Your task to perform on an android device: uninstall "Booking.com: Hotels and more" Image 0: 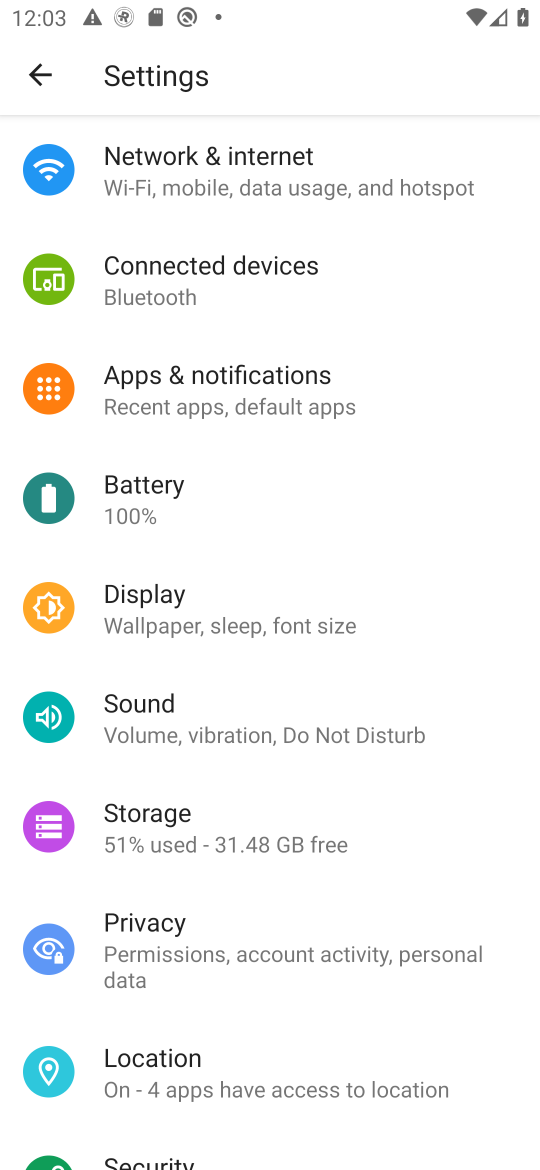
Step 0: press home button
Your task to perform on an android device: uninstall "Booking.com: Hotels and more" Image 1: 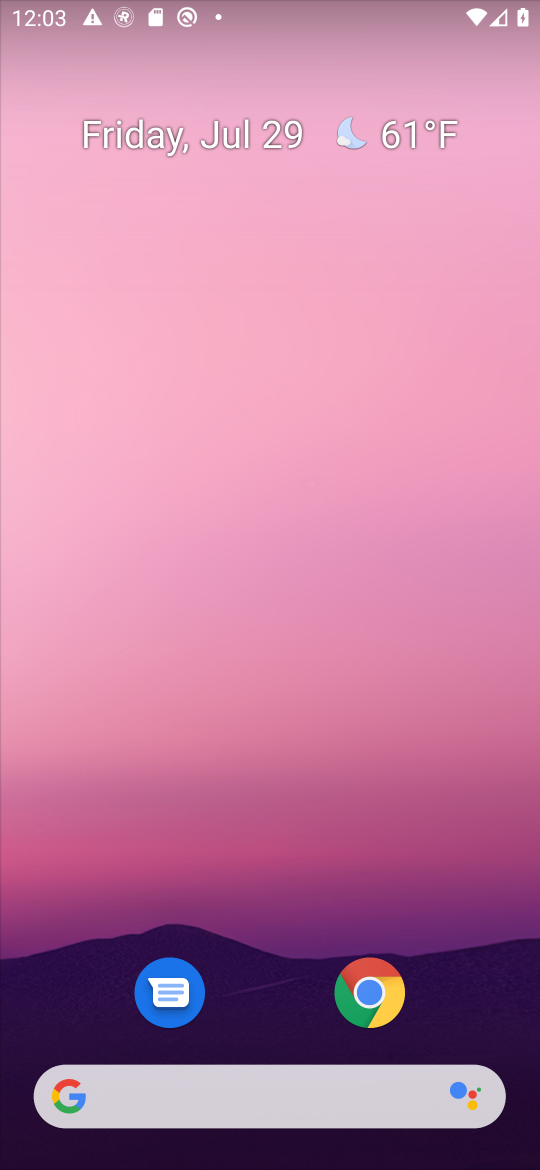
Step 1: drag from (195, 1084) to (137, 173)
Your task to perform on an android device: uninstall "Booking.com: Hotels and more" Image 2: 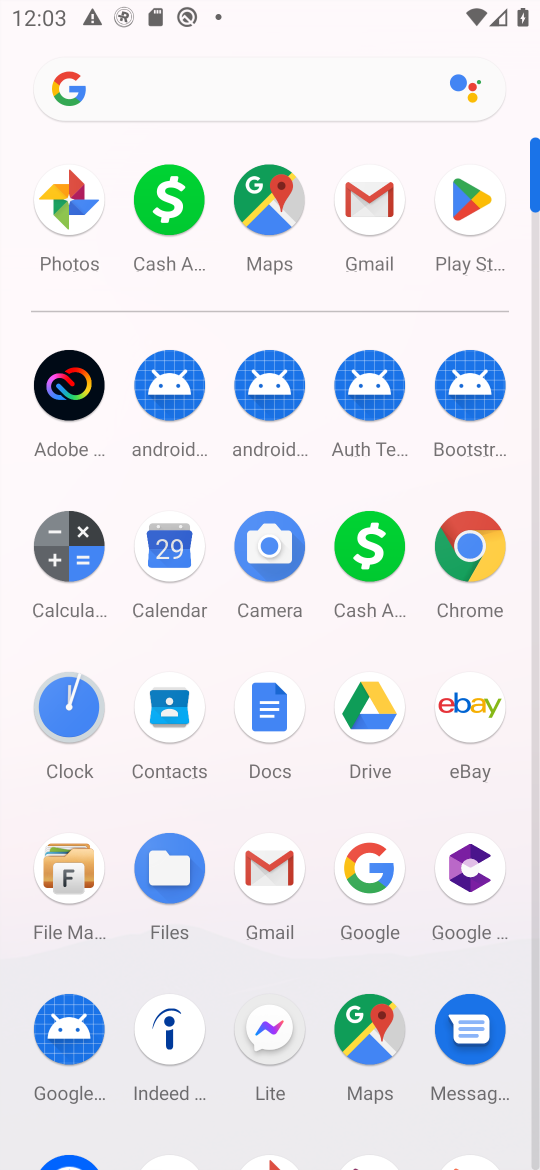
Step 2: click (467, 204)
Your task to perform on an android device: uninstall "Booking.com: Hotels and more" Image 3: 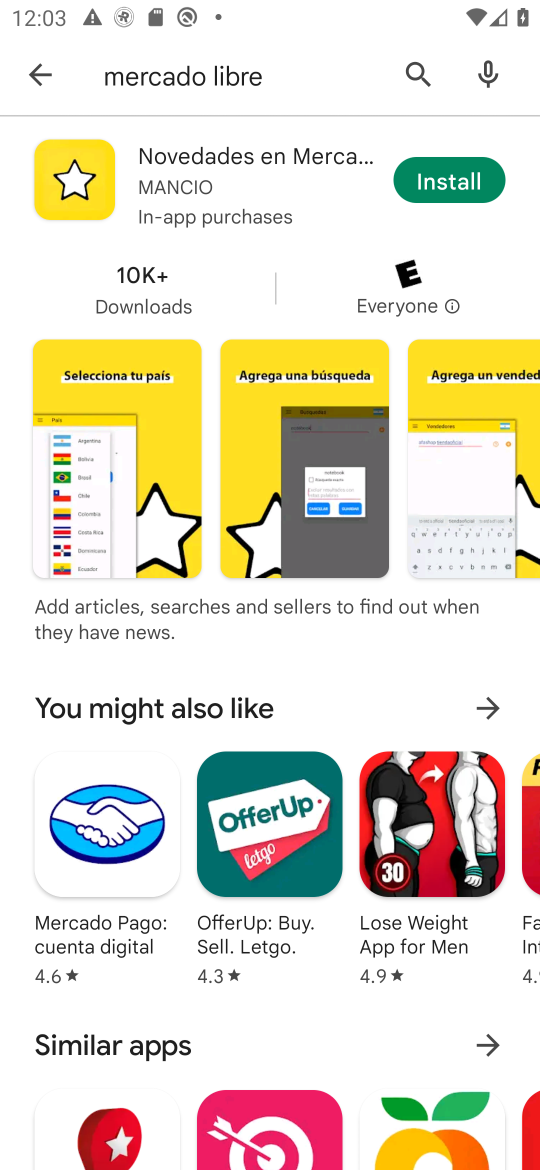
Step 3: click (413, 71)
Your task to perform on an android device: uninstall "Booking.com: Hotels and more" Image 4: 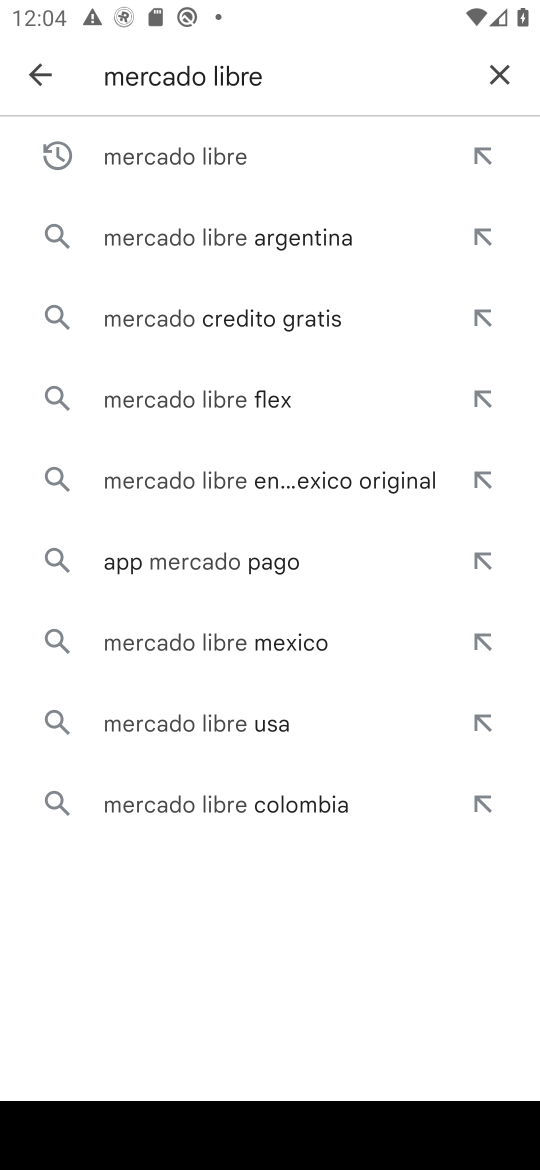
Step 4: click (495, 79)
Your task to perform on an android device: uninstall "Booking.com: Hotels and more" Image 5: 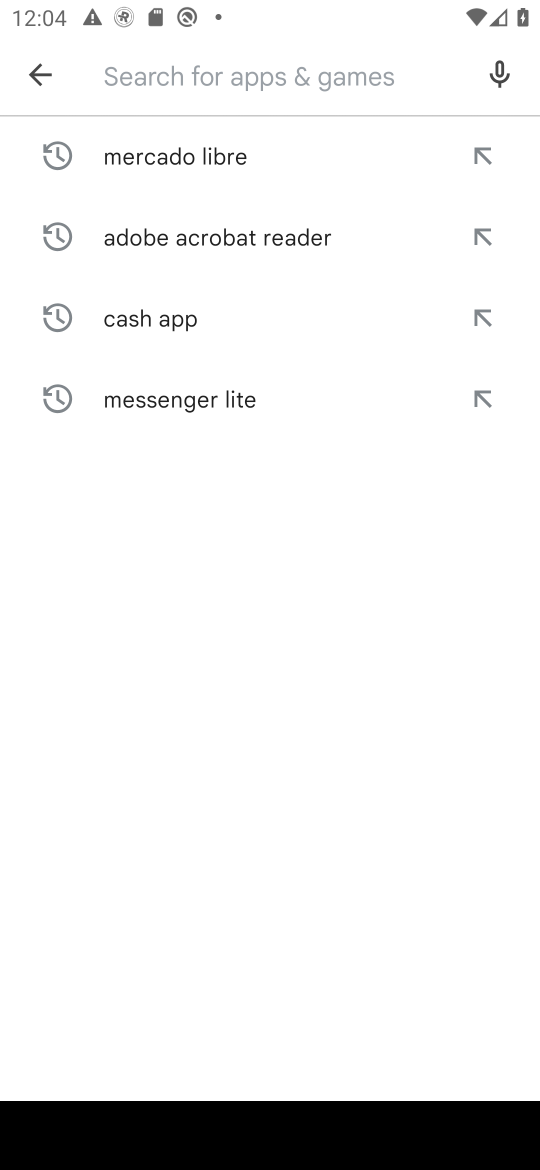
Step 5: type "Booking.com: Hotels and more"
Your task to perform on an android device: uninstall "Booking.com: Hotels and more" Image 6: 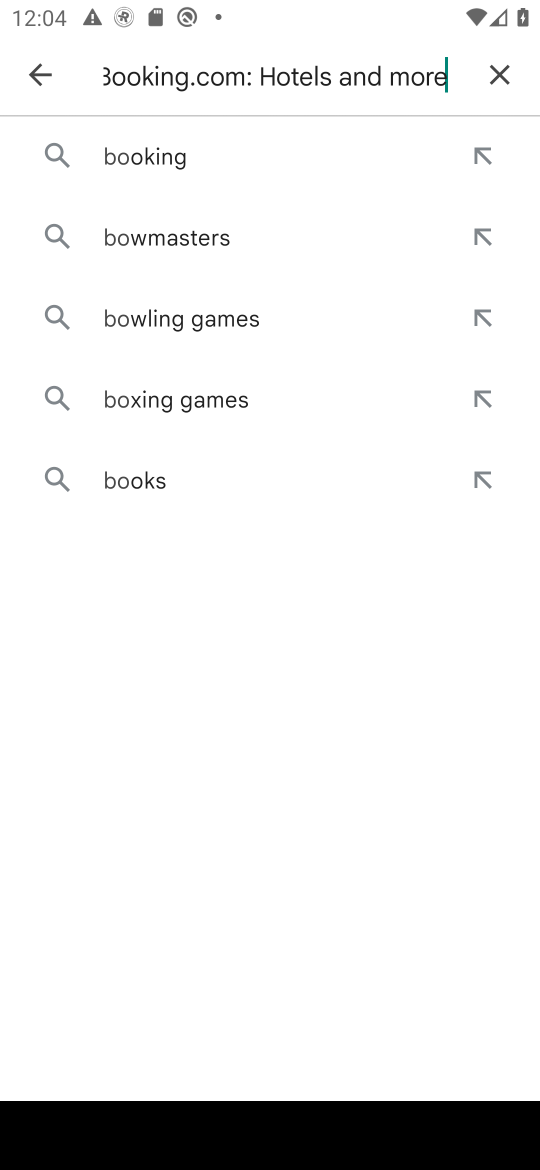
Step 6: type ""
Your task to perform on an android device: uninstall "Booking.com: Hotels and more" Image 7: 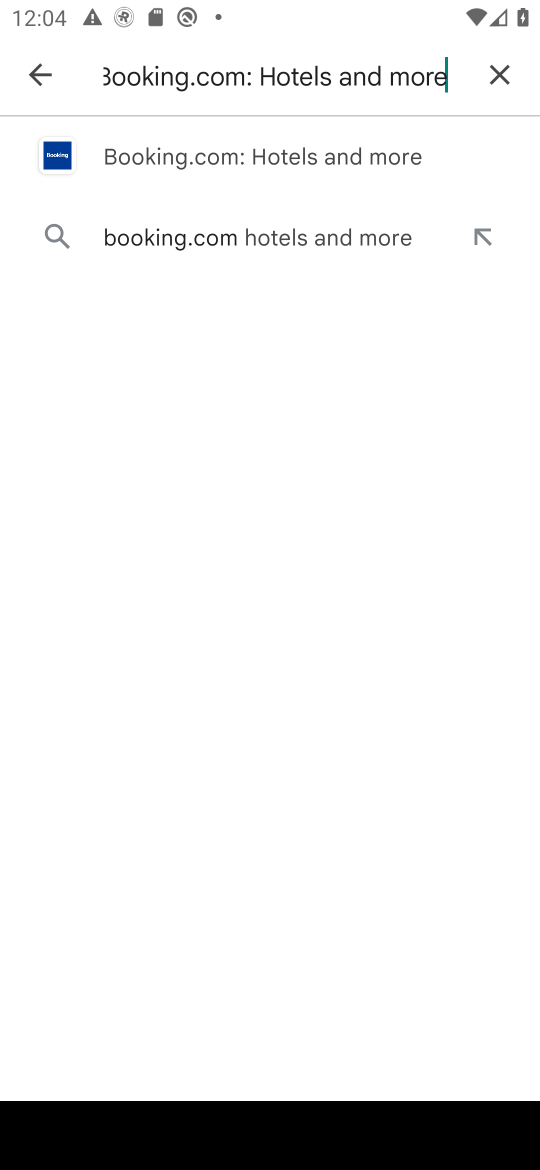
Step 7: click (296, 168)
Your task to perform on an android device: uninstall "Booking.com: Hotels and more" Image 8: 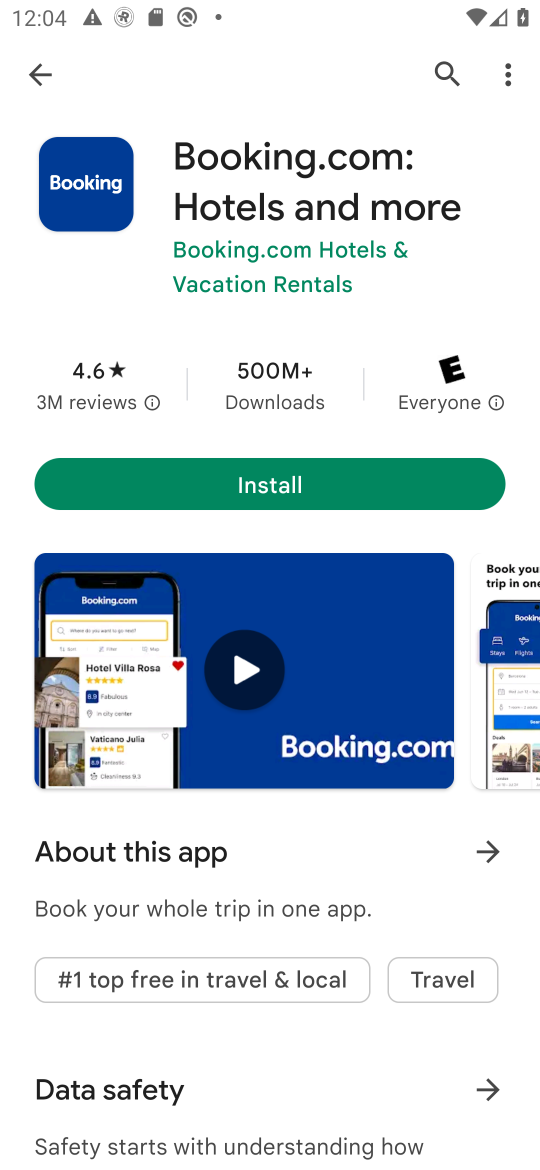
Step 8: task complete